Your task to perform on an android device: allow cookies in the chrome app Image 0: 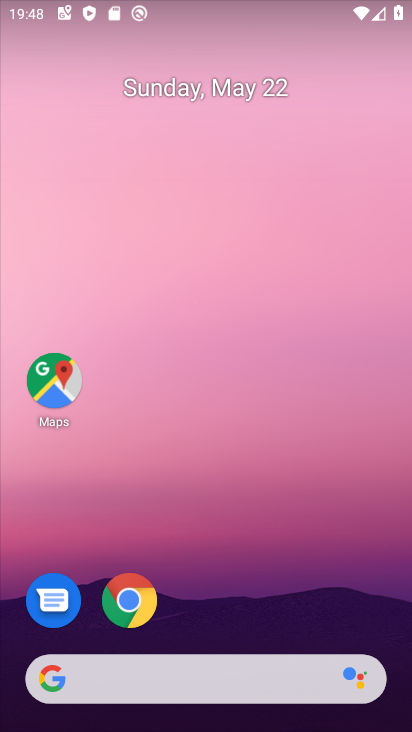
Step 0: drag from (214, 562) to (198, 5)
Your task to perform on an android device: allow cookies in the chrome app Image 1: 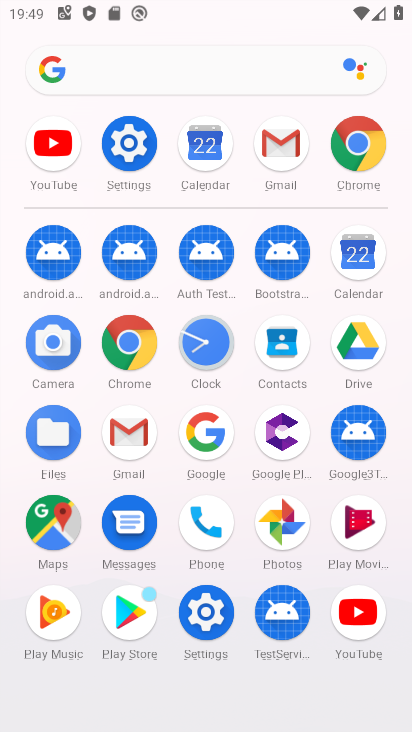
Step 1: click (360, 139)
Your task to perform on an android device: allow cookies in the chrome app Image 2: 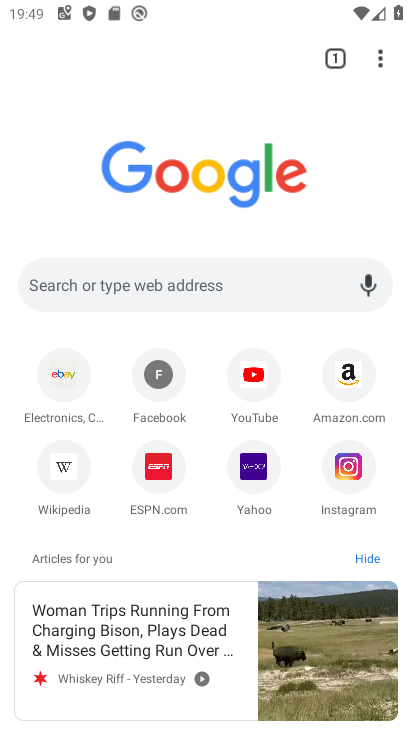
Step 2: drag from (379, 52) to (154, 489)
Your task to perform on an android device: allow cookies in the chrome app Image 3: 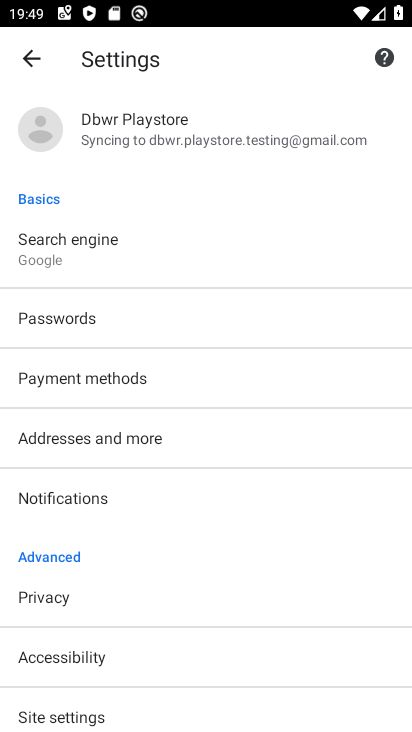
Step 3: click (100, 668)
Your task to perform on an android device: allow cookies in the chrome app Image 4: 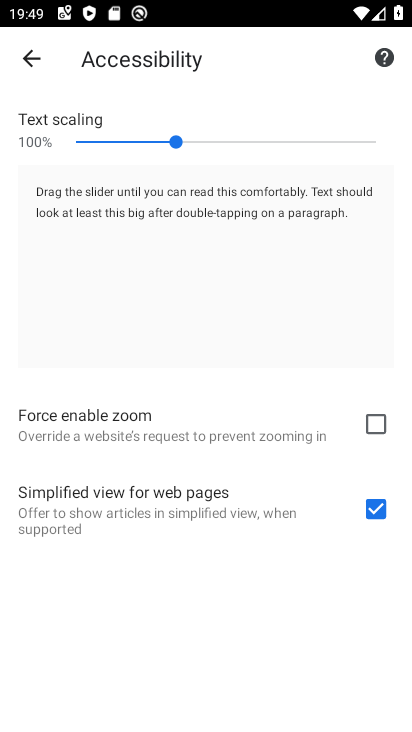
Step 4: click (39, 62)
Your task to perform on an android device: allow cookies in the chrome app Image 5: 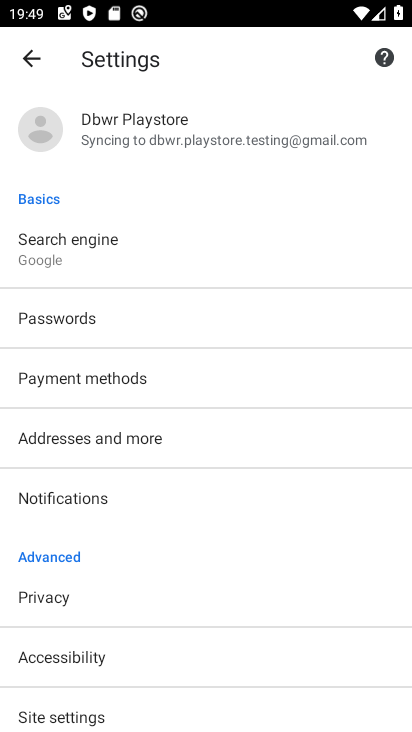
Step 5: drag from (172, 629) to (226, 350)
Your task to perform on an android device: allow cookies in the chrome app Image 6: 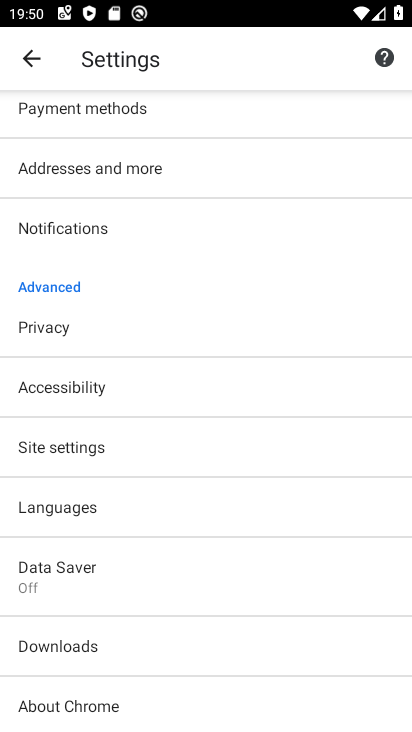
Step 6: click (75, 565)
Your task to perform on an android device: allow cookies in the chrome app Image 7: 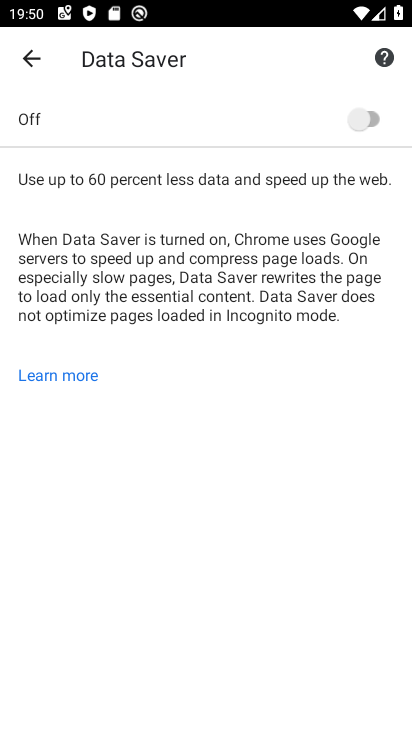
Step 7: click (21, 46)
Your task to perform on an android device: allow cookies in the chrome app Image 8: 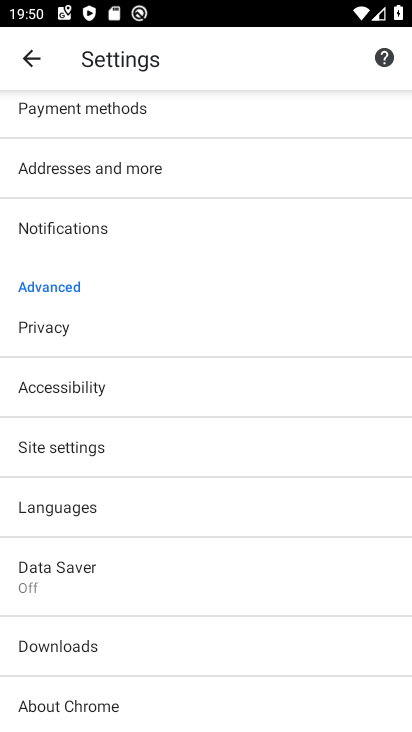
Step 8: click (81, 449)
Your task to perform on an android device: allow cookies in the chrome app Image 9: 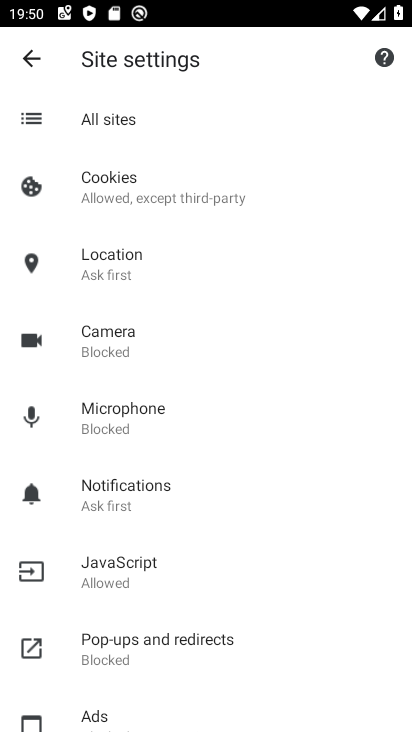
Step 9: click (180, 175)
Your task to perform on an android device: allow cookies in the chrome app Image 10: 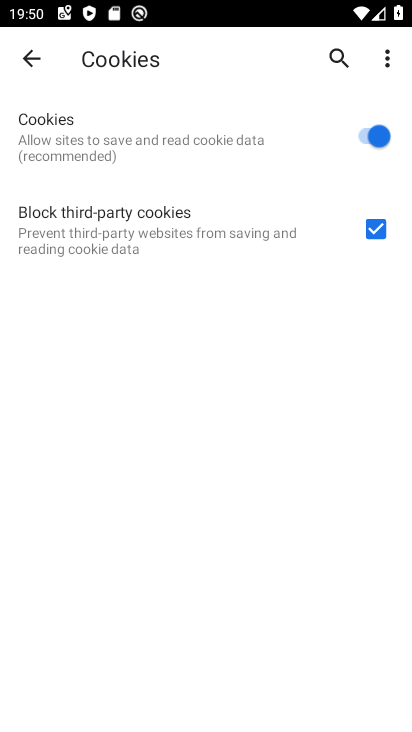
Step 10: task complete